Your task to perform on an android device: check android version Image 0: 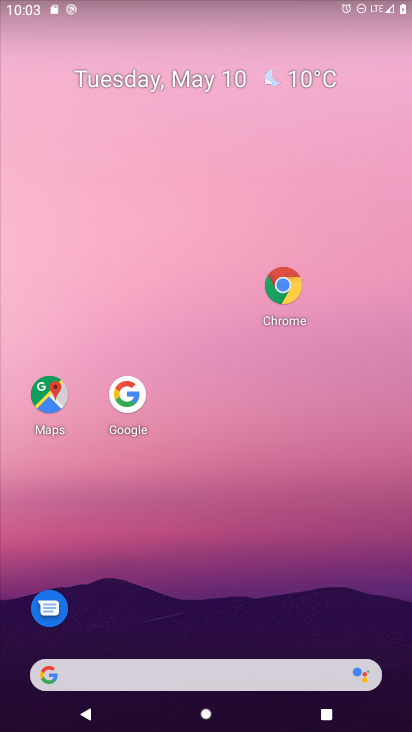
Step 0: press home button
Your task to perform on an android device: check android version Image 1: 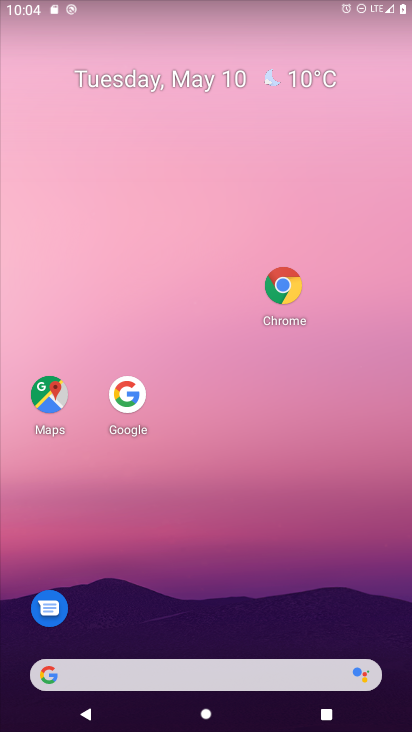
Step 1: drag from (150, 667) to (323, 118)
Your task to perform on an android device: check android version Image 2: 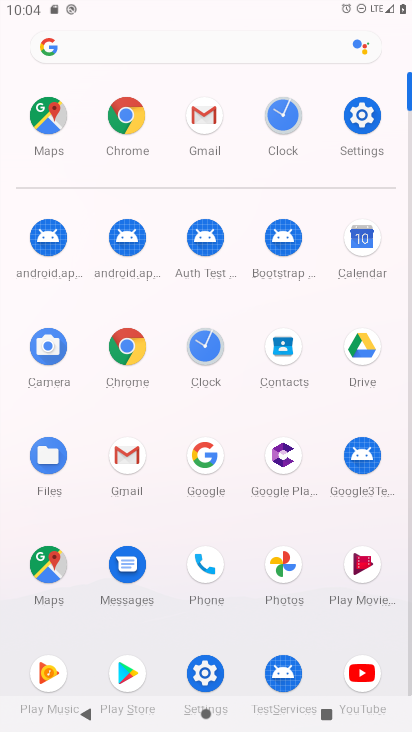
Step 2: click (358, 116)
Your task to perform on an android device: check android version Image 3: 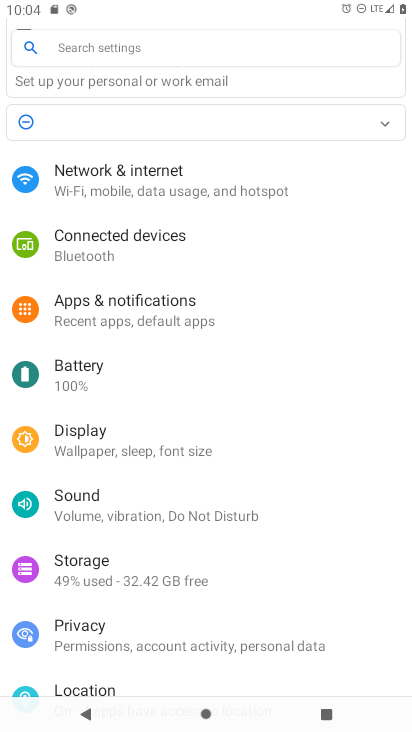
Step 3: drag from (176, 581) to (371, 67)
Your task to perform on an android device: check android version Image 4: 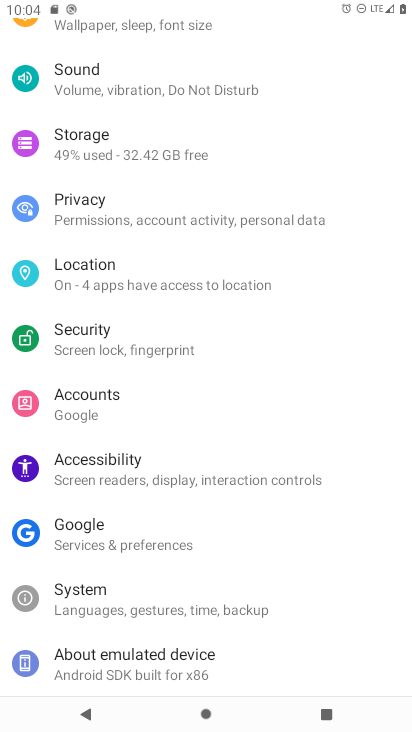
Step 4: drag from (197, 563) to (388, 71)
Your task to perform on an android device: check android version Image 5: 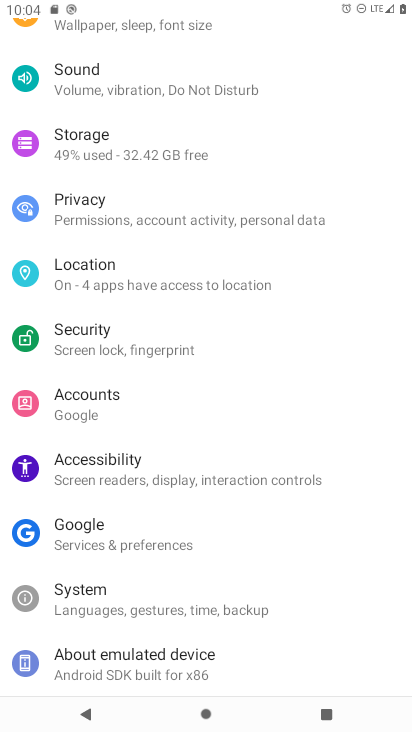
Step 5: click (120, 661)
Your task to perform on an android device: check android version Image 6: 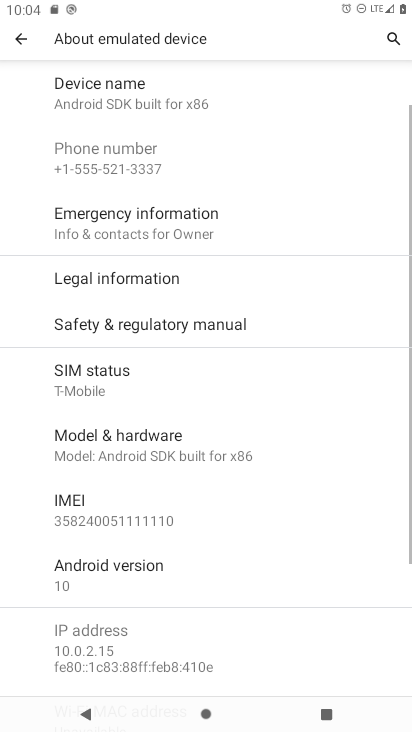
Step 6: click (135, 566)
Your task to perform on an android device: check android version Image 7: 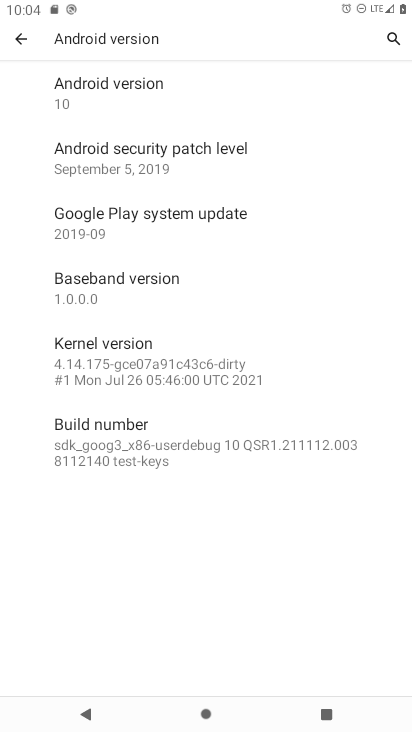
Step 7: task complete